Your task to perform on an android device: change keyboard looks Image 0: 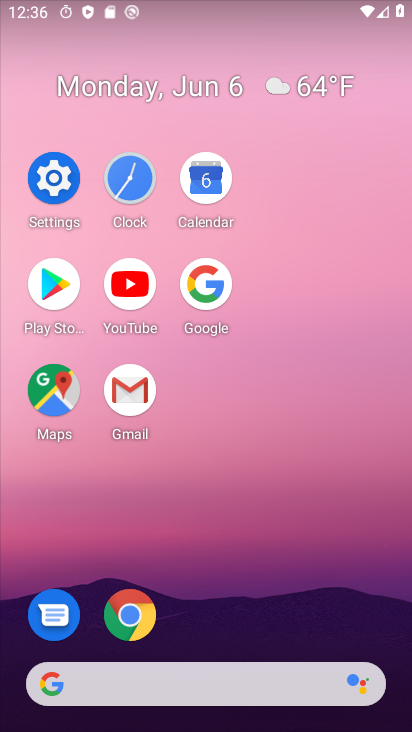
Step 0: click (48, 183)
Your task to perform on an android device: change keyboard looks Image 1: 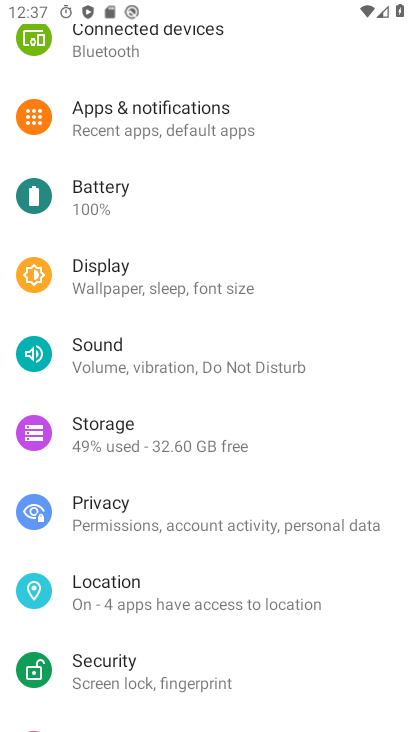
Step 1: drag from (235, 611) to (260, 316)
Your task to perform on an android device: change keyboard looks Image 2: 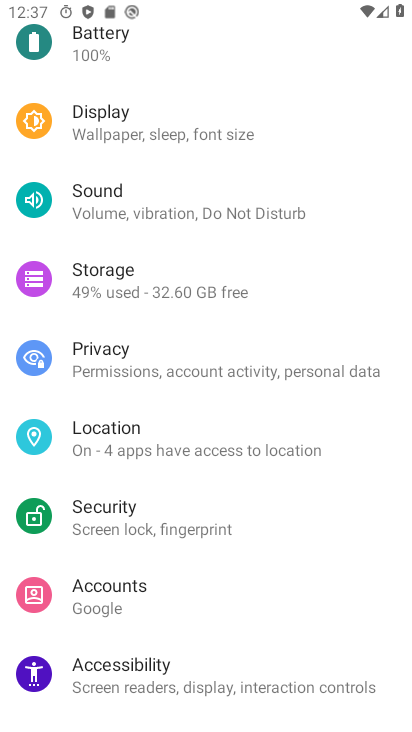
Step 2: drag from (153, 555) to (207, 304)
Your task to perform on an android device: change keyboard looks Image 3: 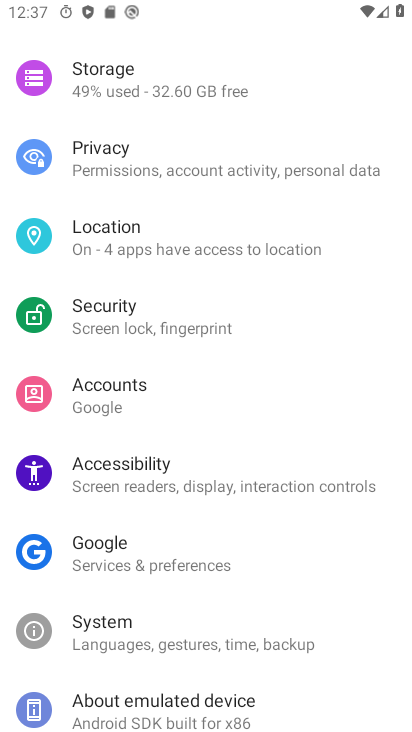
Step 3: click (100, 644)
Your task to perform on an android device: change keyboard looks Image 4: 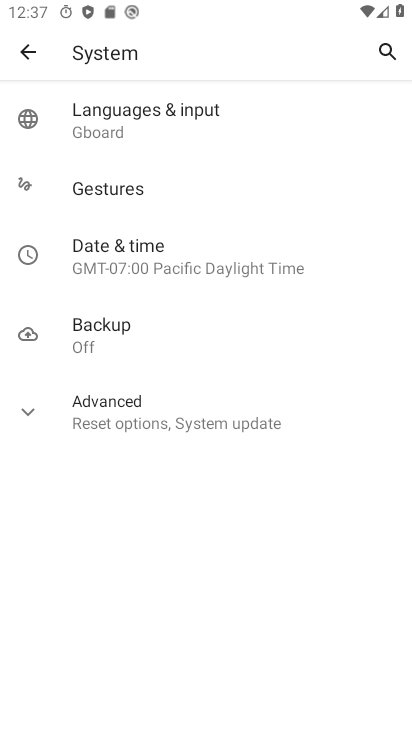
Step 4: click (132, 140)
Your task to perform on an android device: change keyboard looks Image 5: 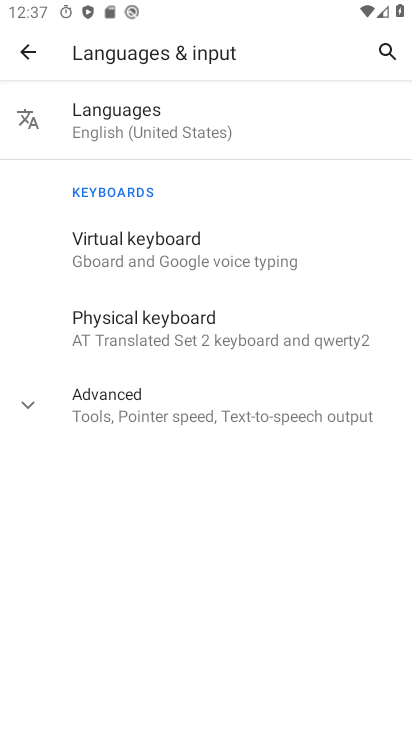
Step 5: click (246, 110)
Your task to perform on an android device: change keyboard looks Image 6: 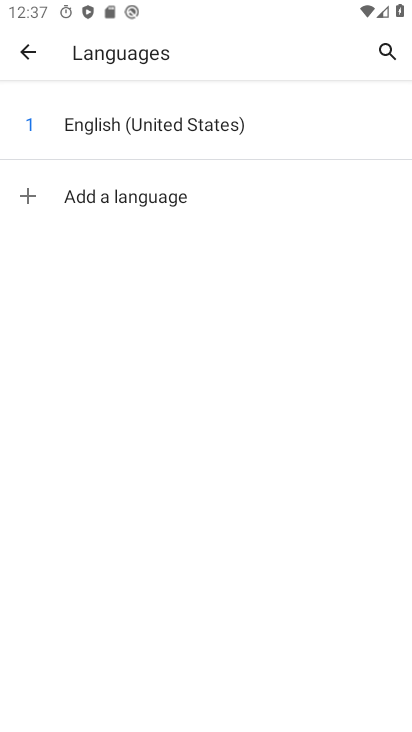
Step 6: click (38, 50)
Your task to perform on an android device: change keyboard looks Image 7: 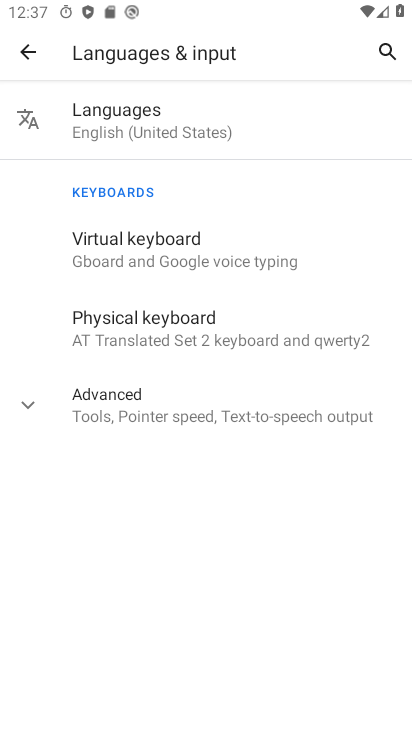
Step 7: click (201, 238)
Your task to perform on an android device: change keyboard looks Image 8: 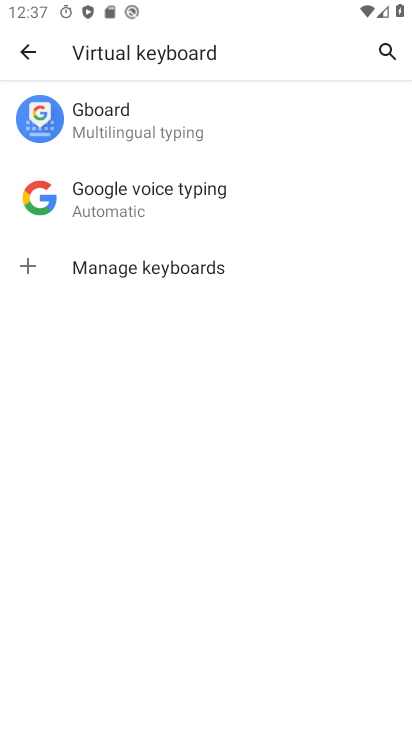
Step 8: click (158, 133)
Your task to perform on an android device: change keyboard looks Image 9: 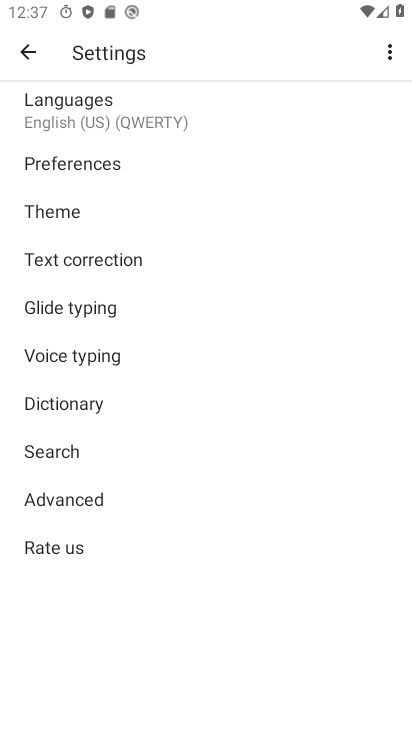
Step 9: click (62, 211)
Your task to perform on an android device: change keyboard looks Image 10: 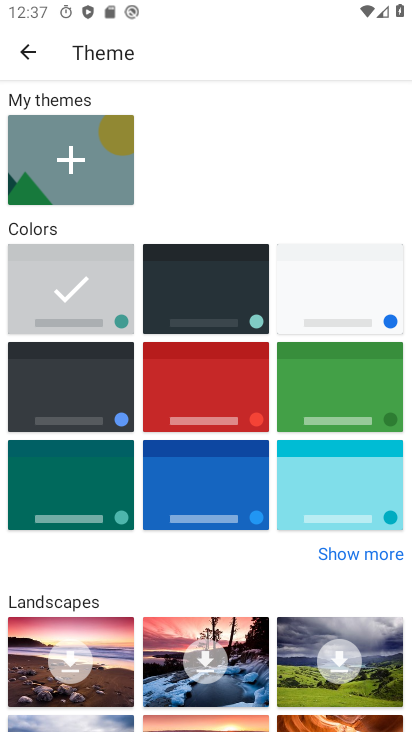
Step 10: click (263, 321)
Your task to perform on an android device: change keyboard looks Image 11: 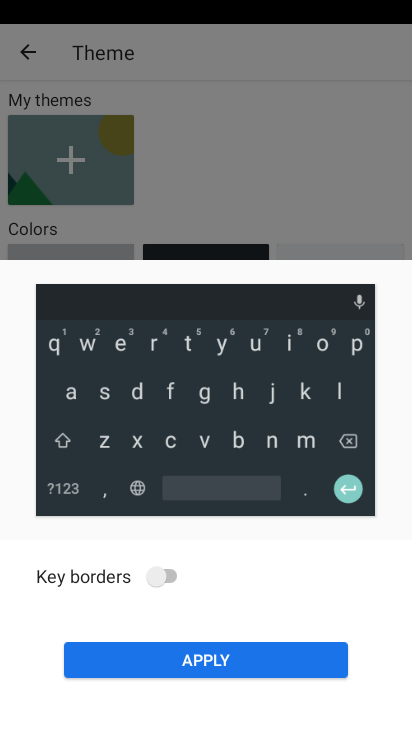
Step 11: click (175, 575)
Your task to perform on an android device: change keyboard looks Image 12: 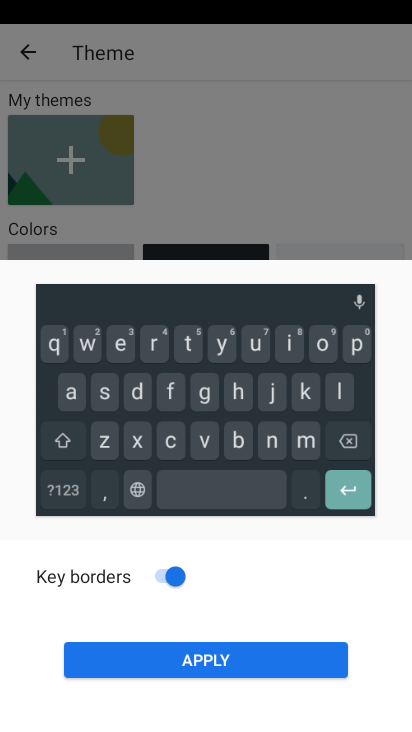
Step 12: click (227, 667)
Your task to perform on an android device: change keyboard looks Image 13: 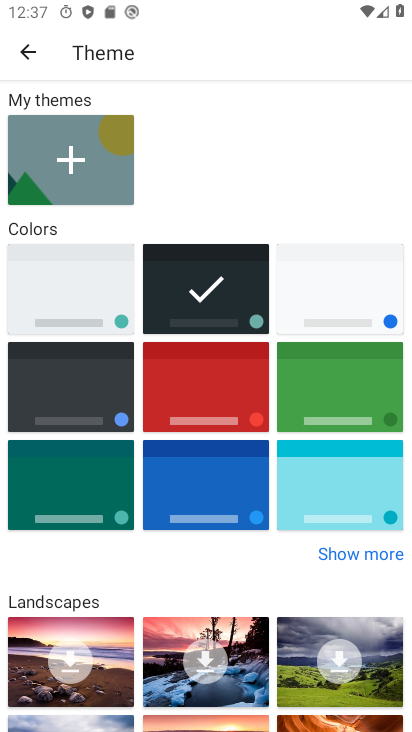
Step 13: task complete